Your task to perform on an android device: check out phone information Image 0: 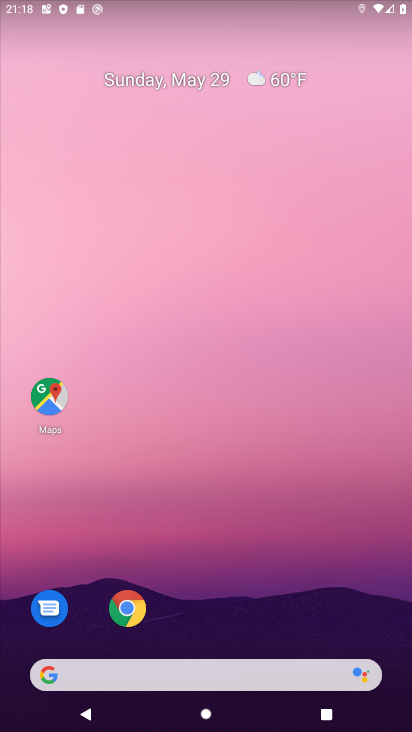
Step 0: drag from (360, 604) to (346, 167)
Your task to perform on an android device: check out phone information Image 1: 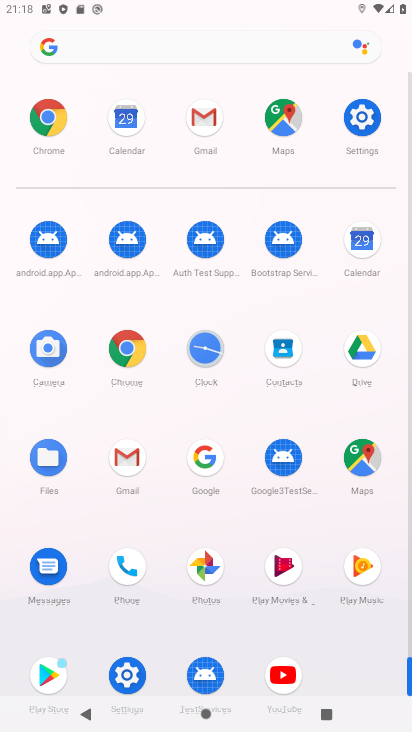
Step 1: click (131, 569)
Your task to perform on an android device: check out phone information Image 2: 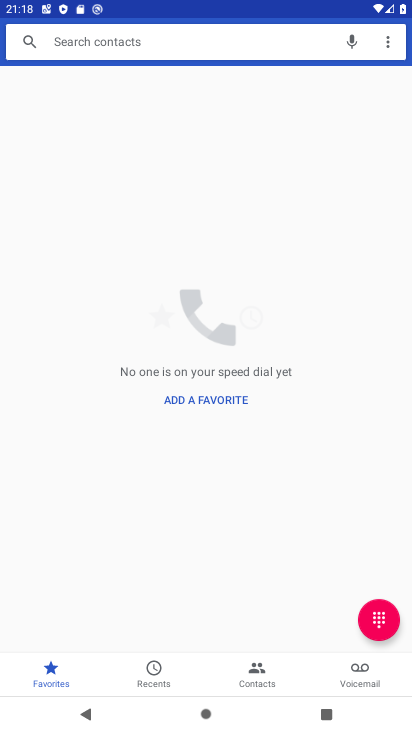
Step 2: click (140, 670)
Your task to perform on an android device: check out phone information Image 3: 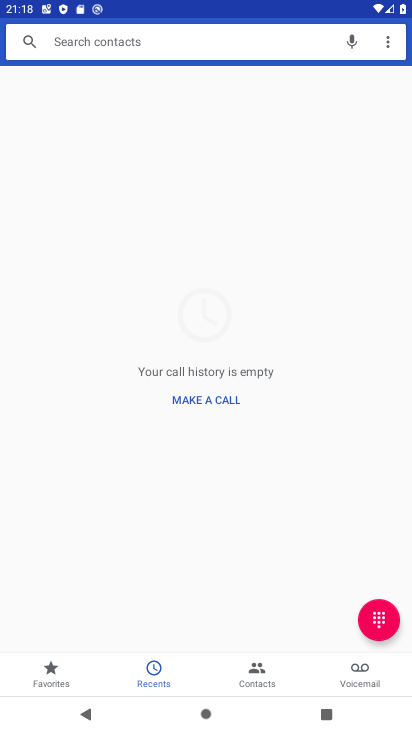
Step 3: task complete